Your task to perform on an android device: make emails show in primary in the gmail app Image 0: 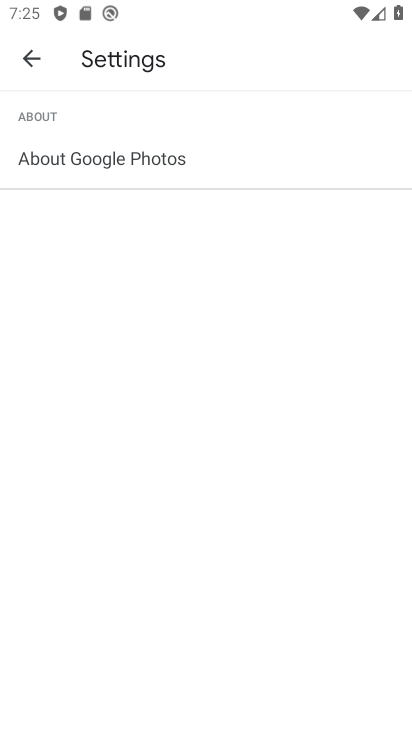
Step 0: press home button
Your task to perform on an android device: make emails show in primary in the gmail app Image 1: 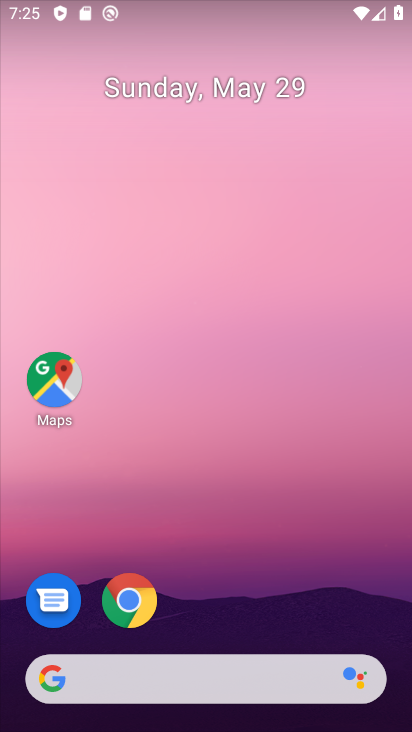
Step 1: drag from (219, 590) to (259, 189)
Your task to perform on an android device: make emails show in primary in the gmail app Image 2: 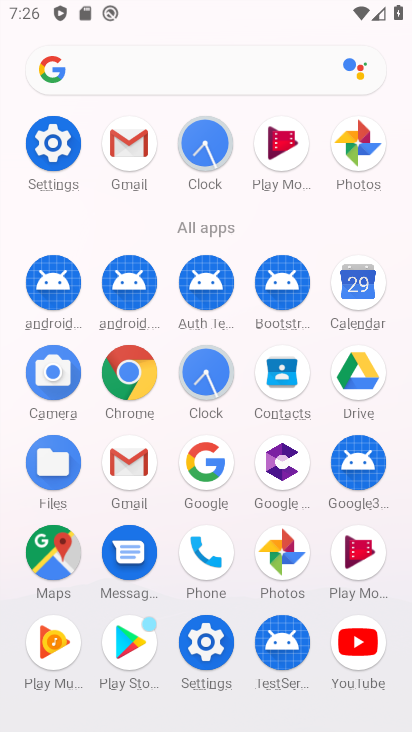
Step 2: click (128, 470)
Your task to perform on an android device: make emails show in primary in the gmail app Image 3: 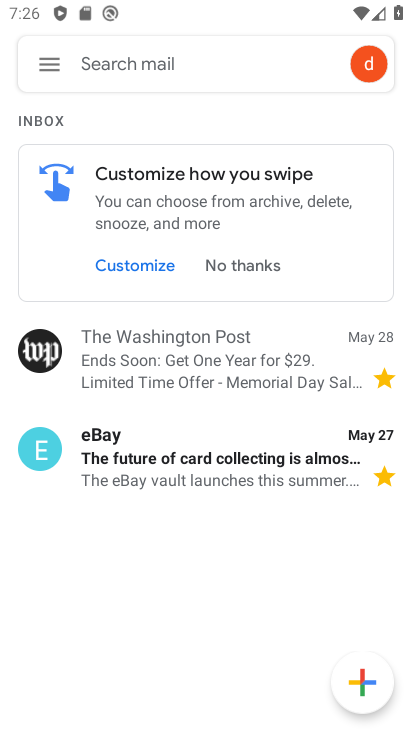
Step 3: click (43, 60)
Your task to perform on an android device: make emails show in primary in the gmail app Image 4: 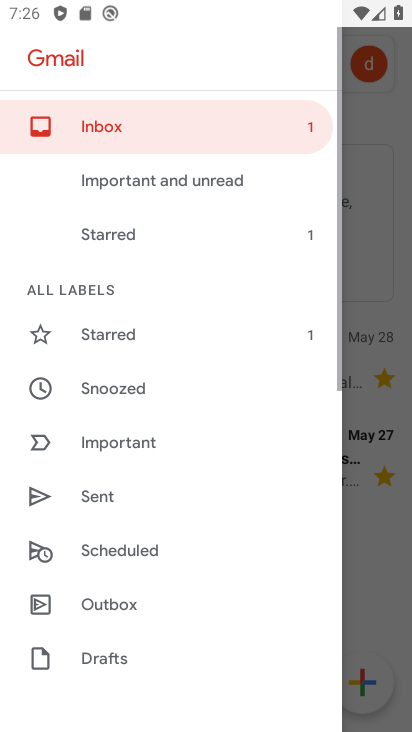
Step 4: drag from (115, 649) to (170, 6)
Your task to perform on an android device: make emails show in primary in the gmail app Image 5: 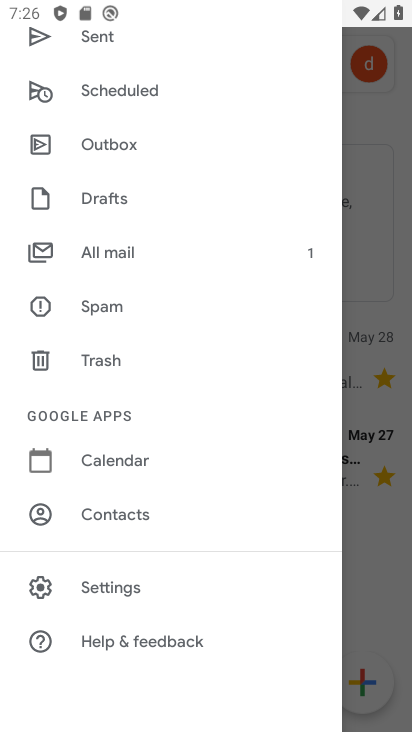
Step 5: click (116, 588)
Your task to perform on an android device: make emails show in primary in the gmail app Image 6: 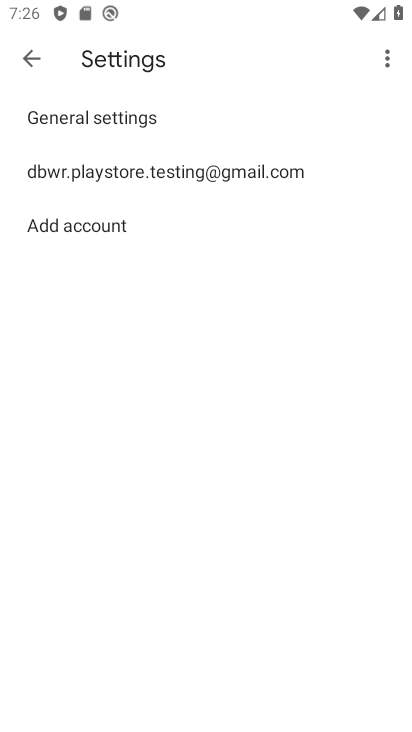
Step 6: click (197, 171)
Your task to perform on an android device: make emails show in primary in the gmail app Image 7: 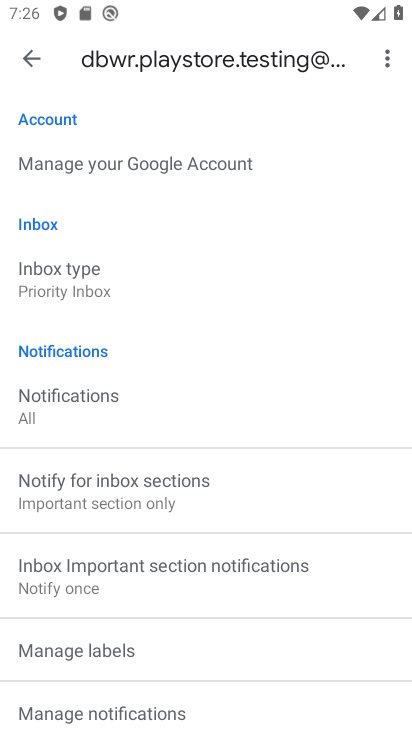
Step 7: click (104, 294)
Your task to perform on an android device: make emails show in primary in the gmail app Image 8: 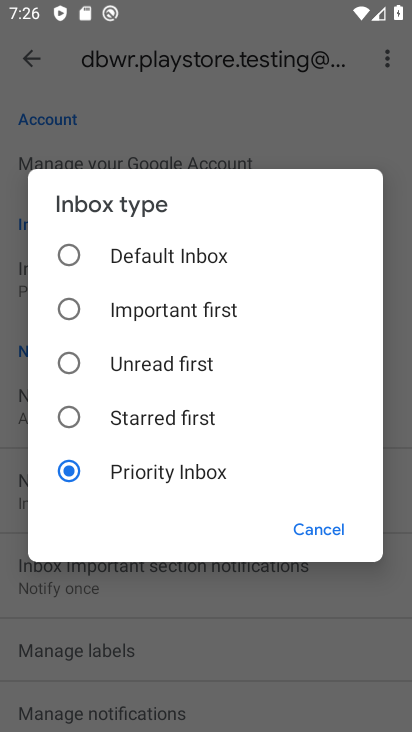
Step 8: click (65, 259)
Your task to perform on an android device: make emails show in primary in the gmail app Image 9: 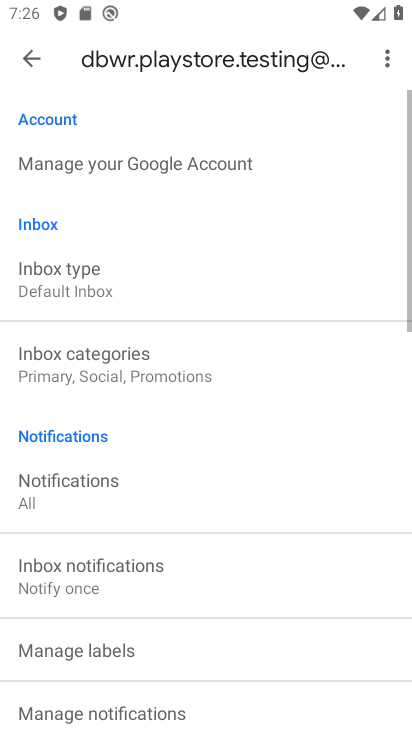
Step 9: click (102, 371)
Your task to perform on an android device: make emails show in primary in the gmail app Image 10: 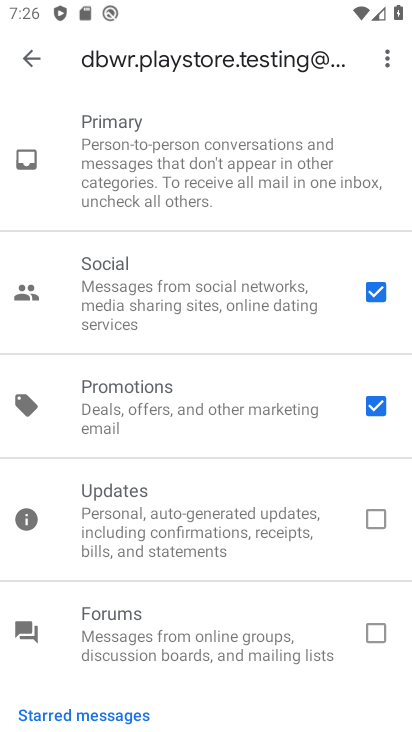
Step 10: click (363, 399)
Your task to perform on an android device: make emails show in primary in the gmail app Image 11: 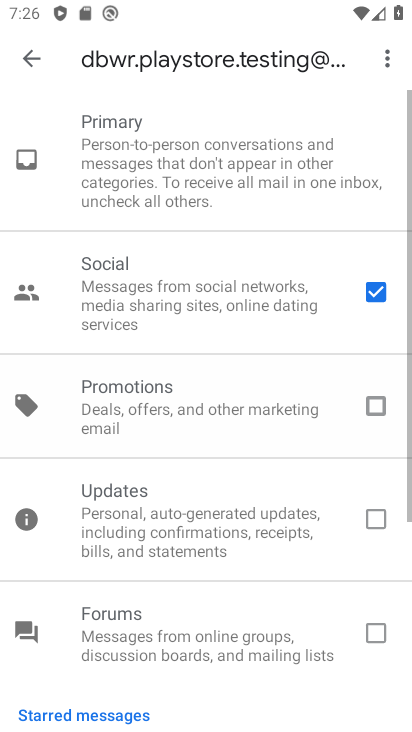
Step 11: click (382, 272)
Your task to perform on an android device: make emails show in primary in the gmail app Image 12: 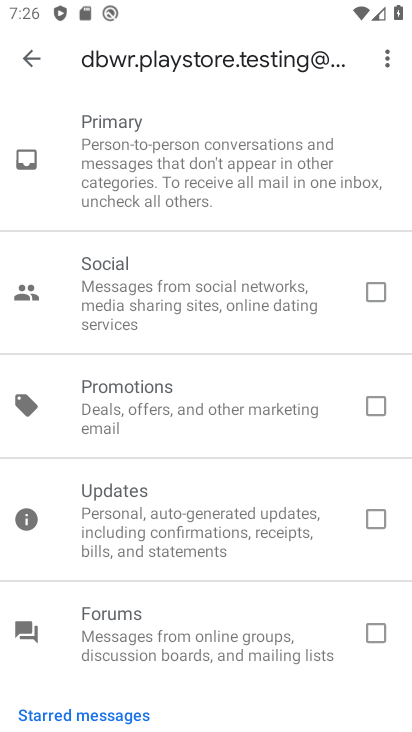
Step 12: task complete